Your task to perform on an android device: Open calendar and show me the third week of next month Image 0: 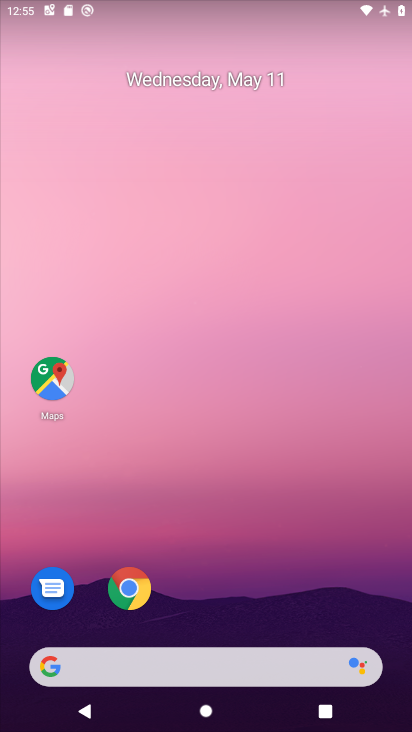
Step 0: drag from (205, 644) to (259, 95)
Your task to perform on an android device: Open calendar and show me the third week of next month Image 1: 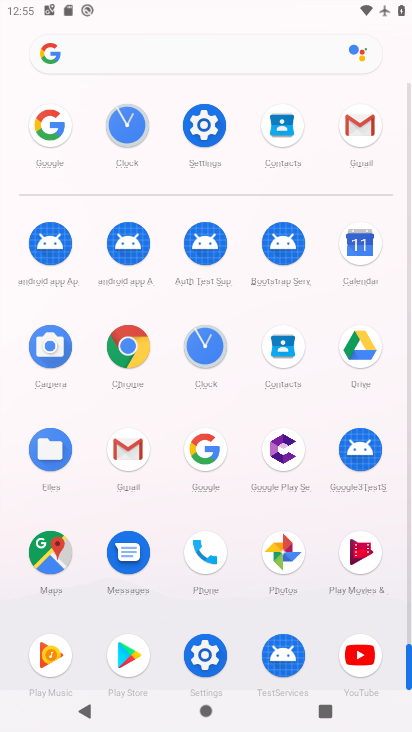
Step 1: click (353, 243)
Your task to perform on an android device: Open calendar and show me the third week of next month Image 2: 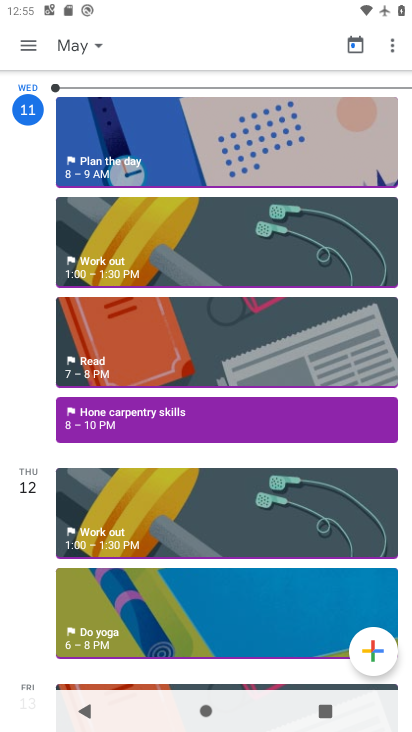
Step 2: click (82, 56)
Your task to perform on an android device: Open calendar and show me the third week of next month Image 3: 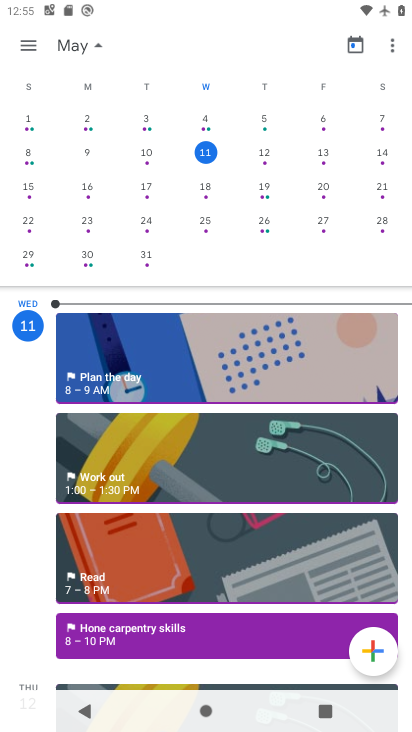
Step 3: drag from (383, 198) to (11, 223)
Your task to perform on an android device: Open calendar and show me the third week of next month Image 4: 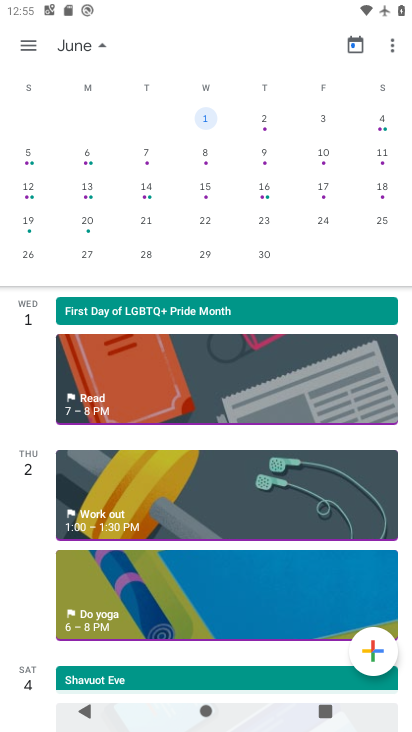
Step 4: click (30, 189)
Your task to perform on an android device: Open calendar and show me the third week of next month Image 5: 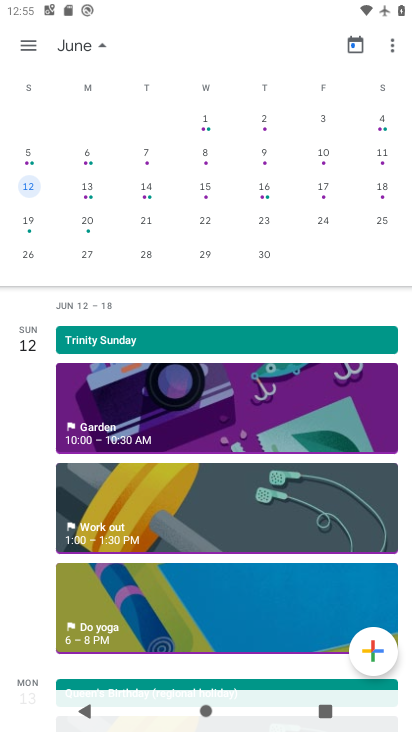
Step 5: task complete